Your task to perform on an android device: Open Reddit.com Image 0: 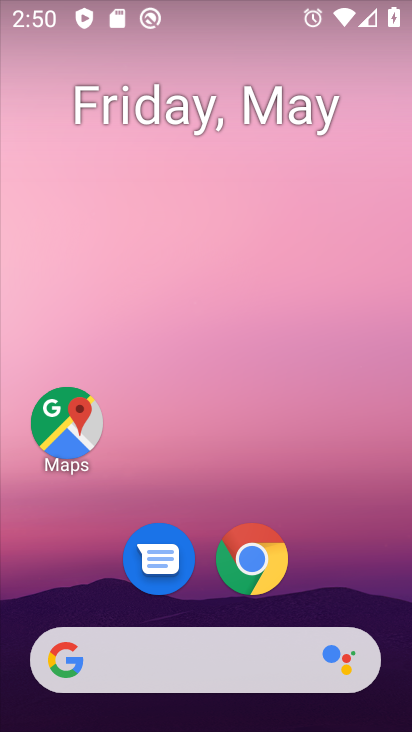
Step 0: drag from (370, 566) to (306, 381)
Your task to perform on an android device: Open Reddit.com Image 1: 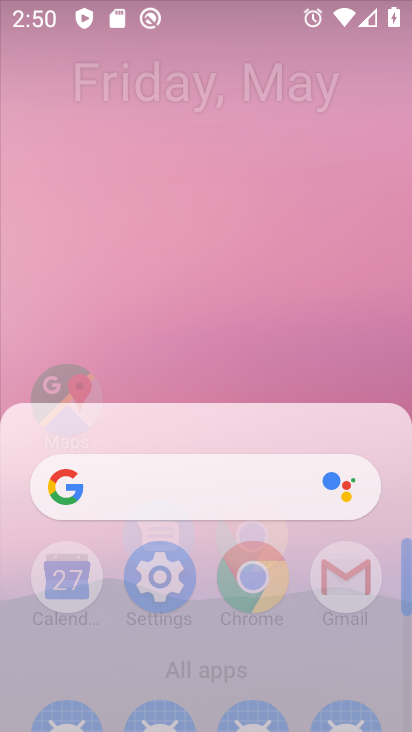
Step 1: click (237, 218)
Your task to perform on an android device: Open Reddit.com Image 2: 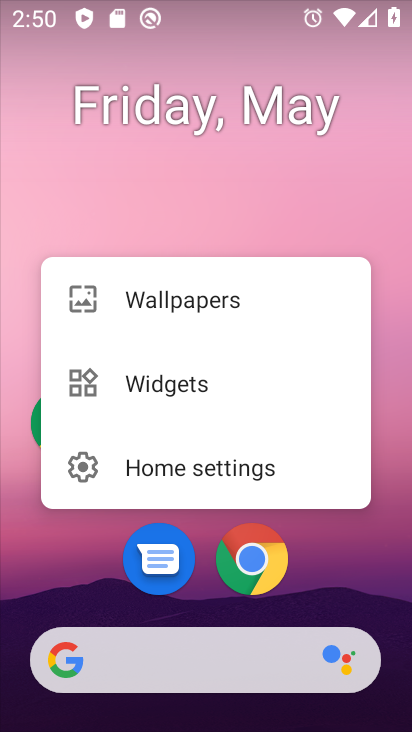
Step 2: click (331, 542)
Your task to perform on an android device: Open Reddit.com Image 3: 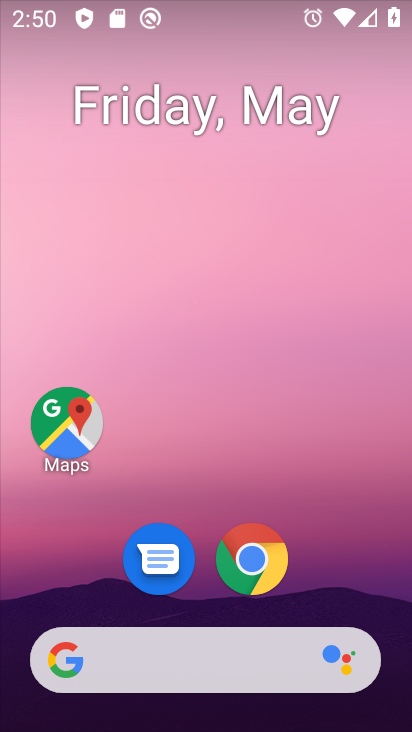
Step 3: drag from (354, 586) to (262, 346)
Your task to perform on an android device: Open Reddit.com Image 4: 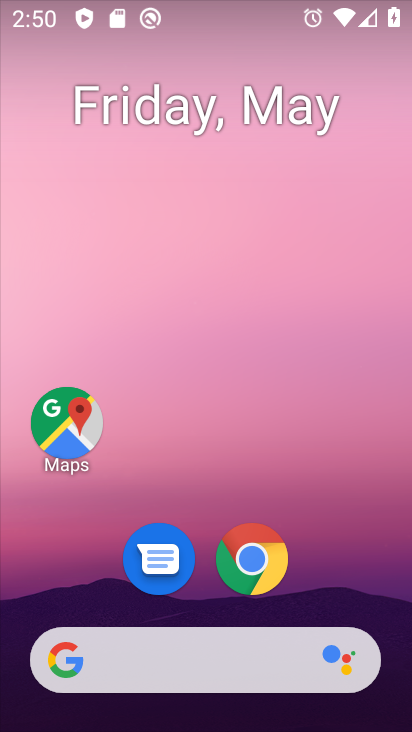
Step 4: click (214, 147)
Your task to perform on an android device: Open Reddit.com Image 5: 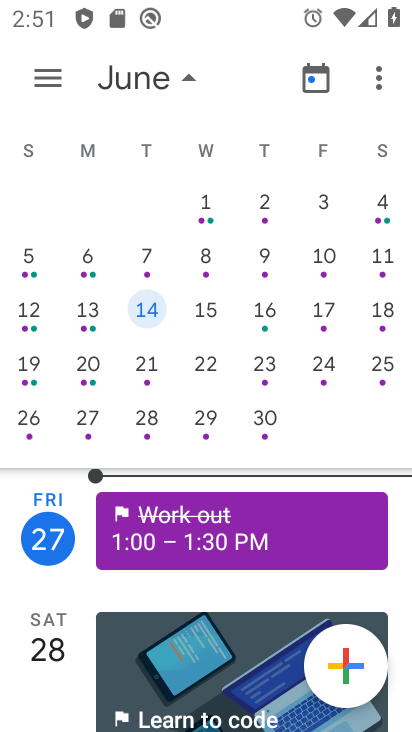
Step 5: task complete